Your task to perform on an android device: toggle location history Image 0: 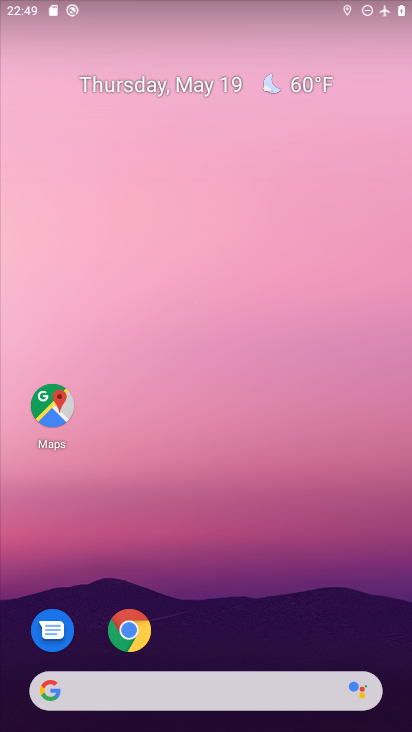
Step 0: drag from (232, 553) to (267, 133)
Your task to perform on an android device: toggle location history Image 1: 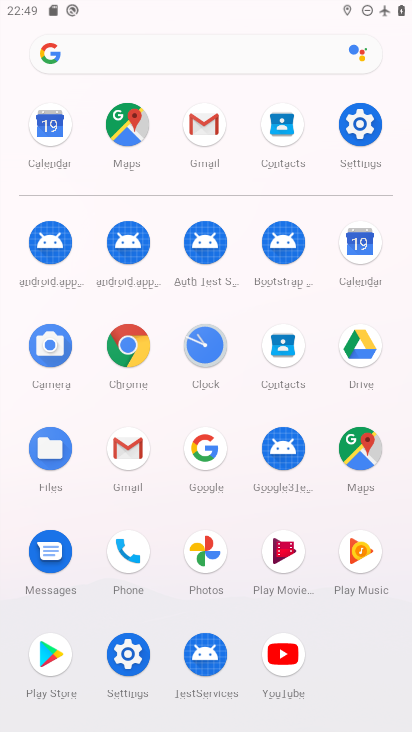
Step 1: click (127, 121)
Your task to perform on an android device: toggle location history Image 2: 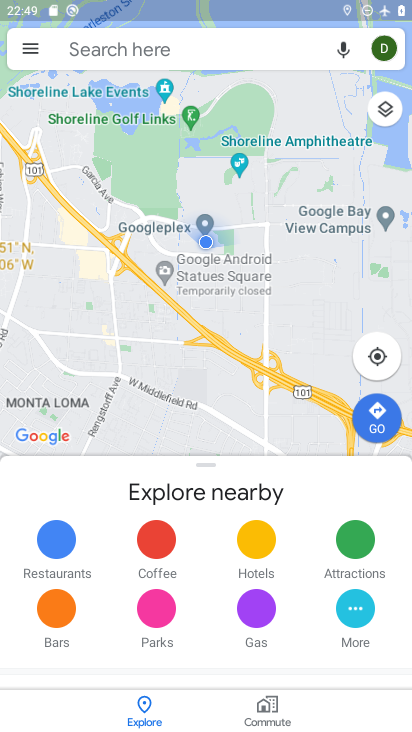
Step 2: click (27, 41)
Your task to perform on an android device: toggle location history Image 3: 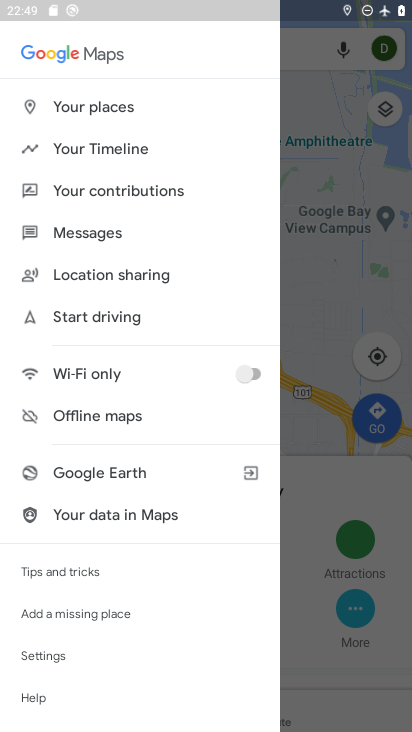
Step 3: click (120, 143)
Your task to perform on an android device: toggle location history Image 4: 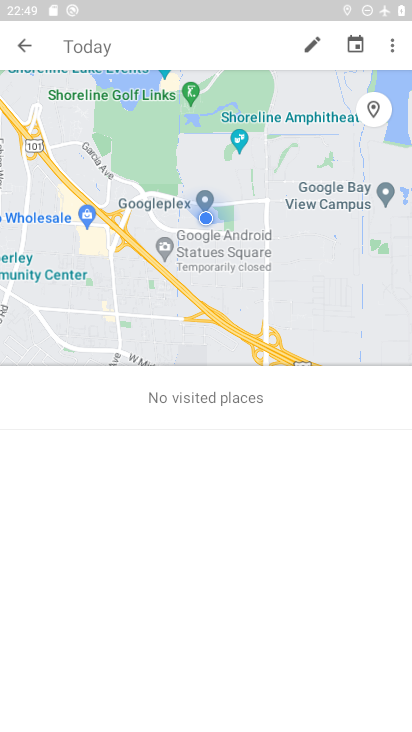
Step 4: click (388, 38)
Your task to perform on an android device: toggle location history Image 5: 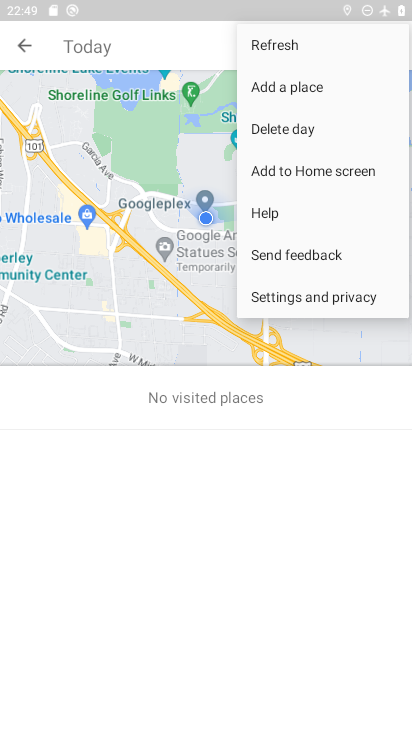
Step 5: click (341, 301)
Your task to perform on an android device: toggle location history Image 6: 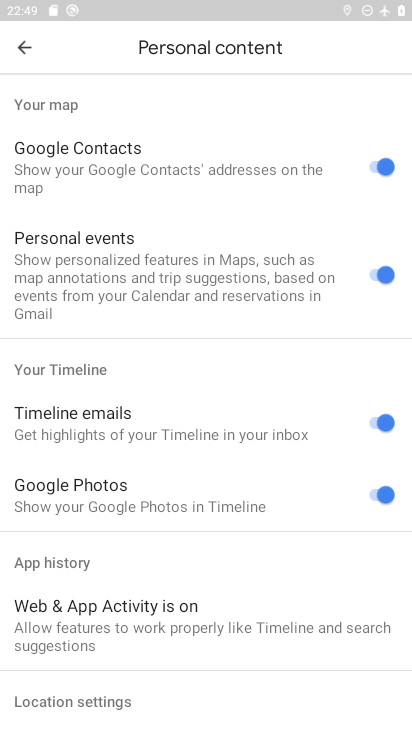
Step 6: drag from (318, 543) to (307, 166)
Your task to perform on an android device: toggle location history Image 7: 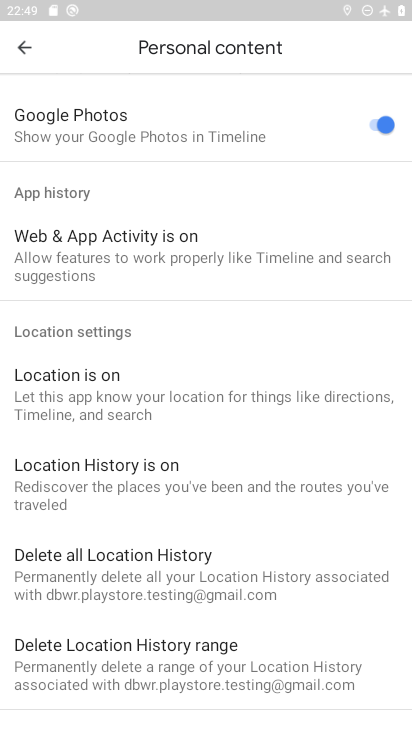
Step 7: drag from (268, 529) to (240, 163)
Your task to perform on an android device: toggle location history Image 8: 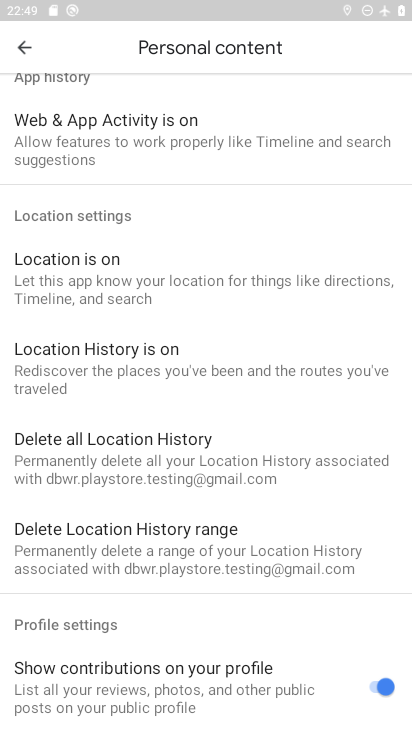
Step 8: click (126, 346)
Your task to perform on an android device: toggle location history Image 9: 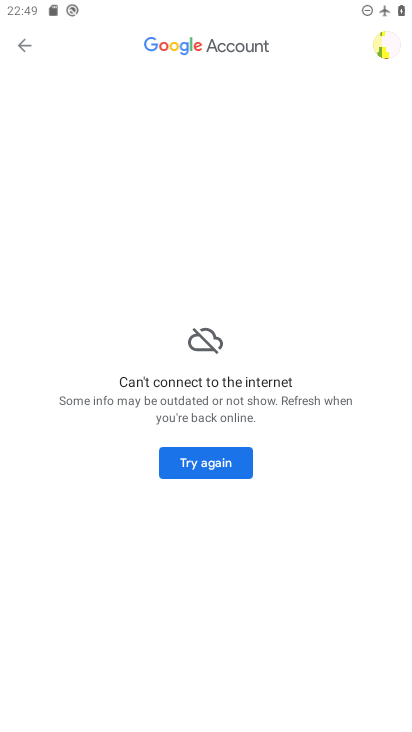
Step 9: task complete